Your task to perform on an android device: Search for pizza restaurants on Maps Image 0: 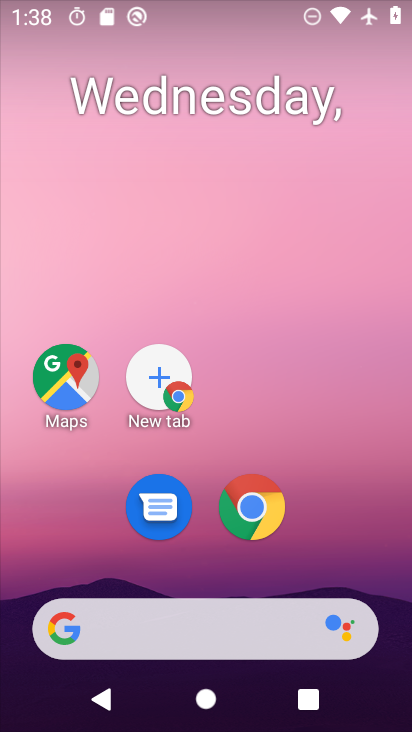
Step 0: drag from (349, 407) to (339, 76)
Your task to perform on an android device: Search for pizza restaurants on Maps Image 1: 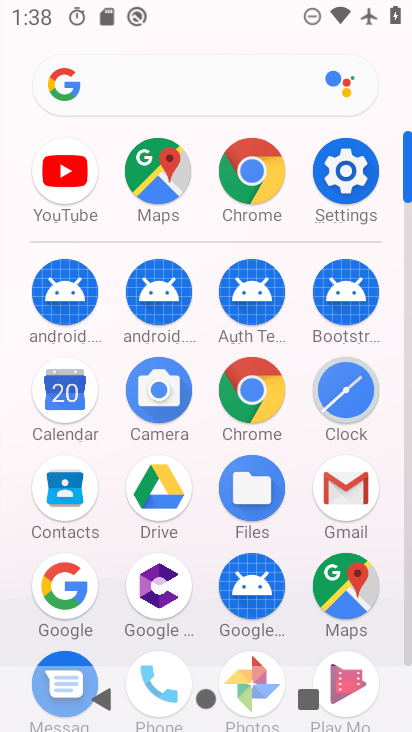
Step 1: click (162, 171)
Your task to perform on an android device: Search for pizza restaurants on Maps Image 2: 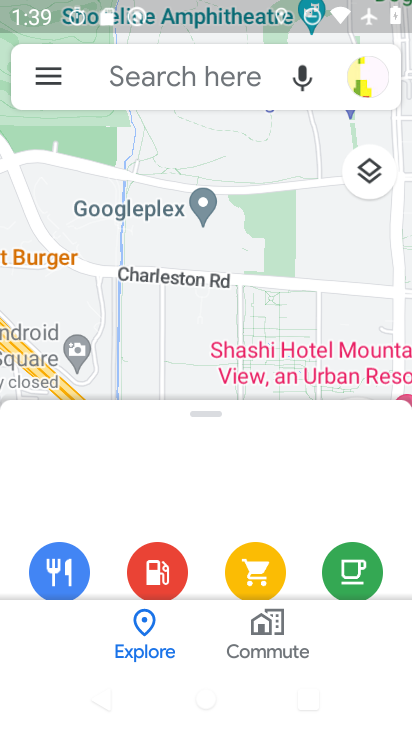
Step 2: click (167, 73)
Your task to perform on an android device: Search for pizza restaurants on Maps Image 3: 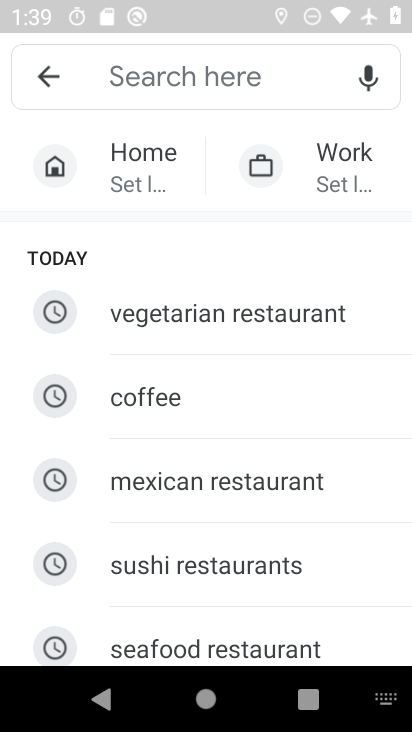
Step 3: drag from (314, 564) to (342, 192)
Your task to perform on an android device: Search for pizza restaurants on Maps Image 4: 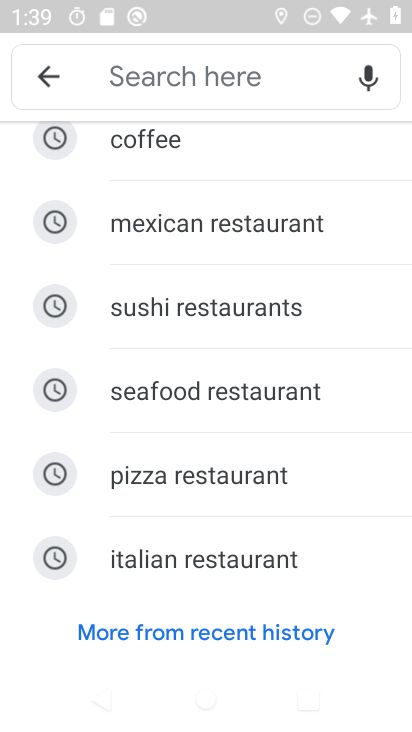
Step 4: click (250, 475)
Your task to perform on an android device: Search for pizza restaurants on Maps Image 5: 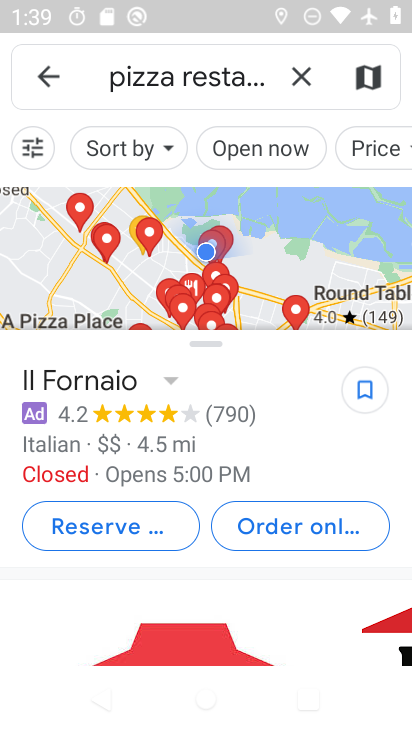
Step 5: task complete